Your task to perform on an android device: clear history in the chrome app Image 0: 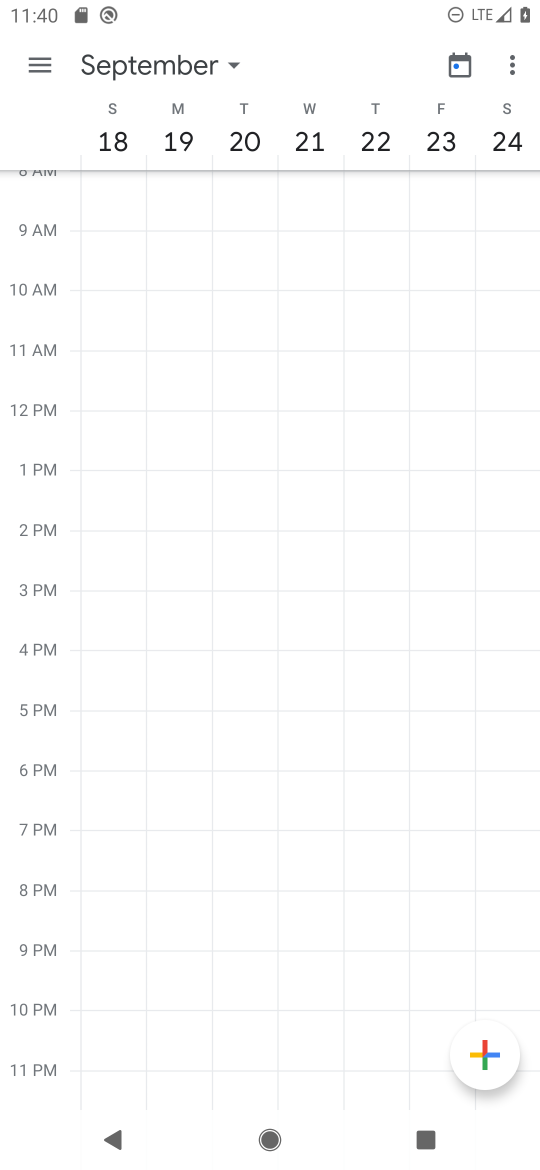
Step 0: press home button
Your task to perform on an android device: clear history in the chrome app Image 1: 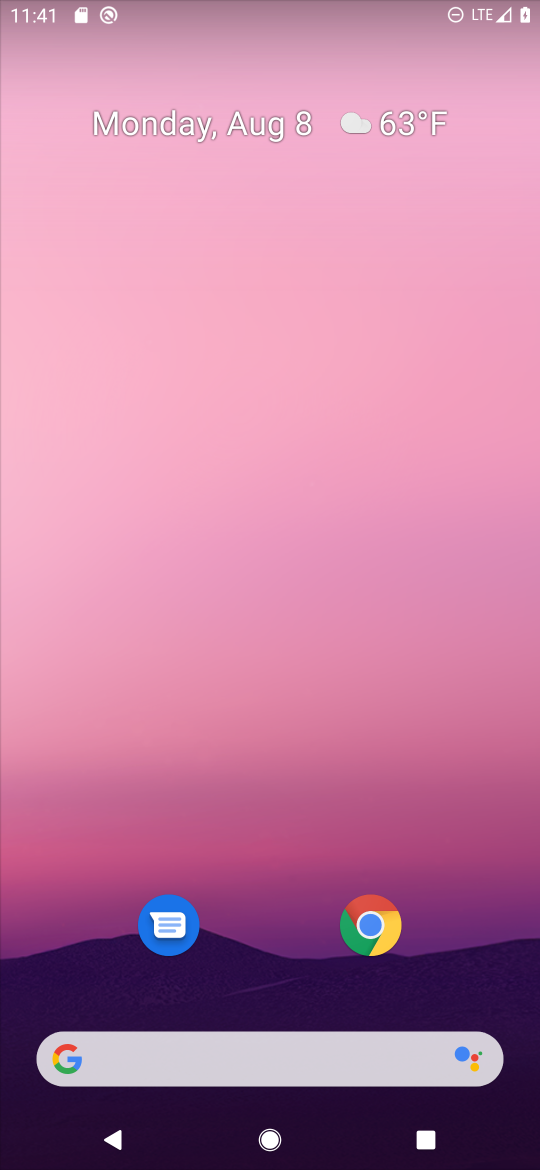
Step 1: click (377, 914)
Your task to perform on an android device: clear history in the chrome app Image 2: 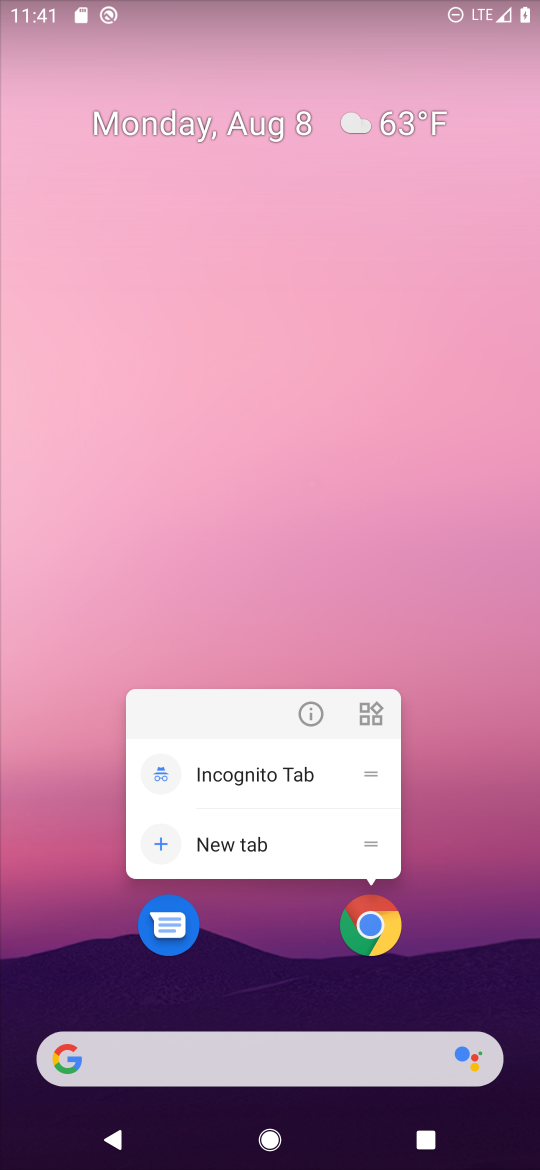
Step 2: click (375, 924)
Your task to perform on an android device: clear history in the chrome app Image 3: 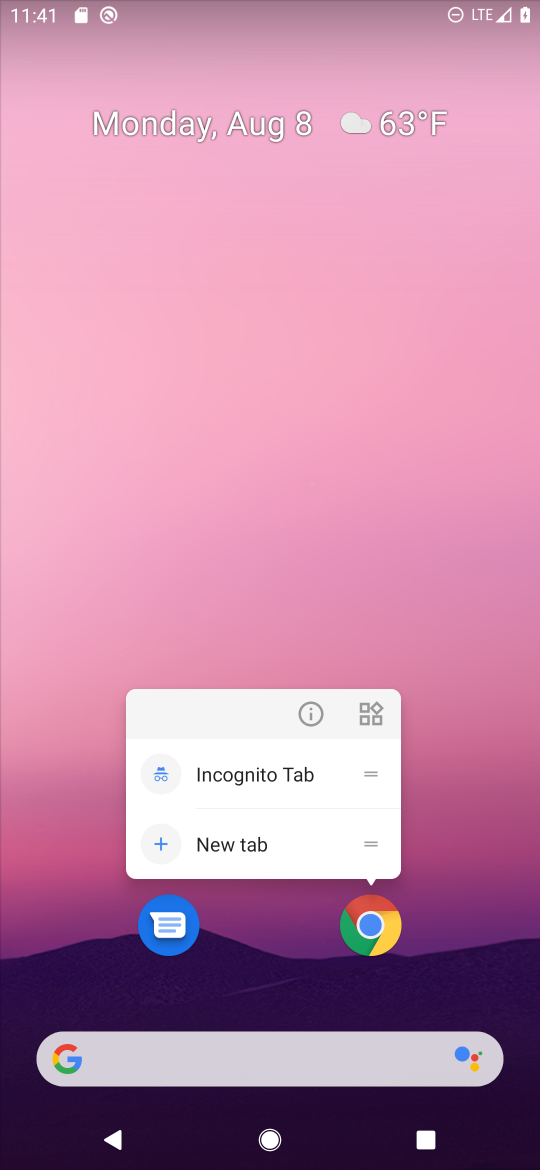
Step 3: click (366, 929)
Your task to perform on an android device: clear history in the chrome app Image 4: 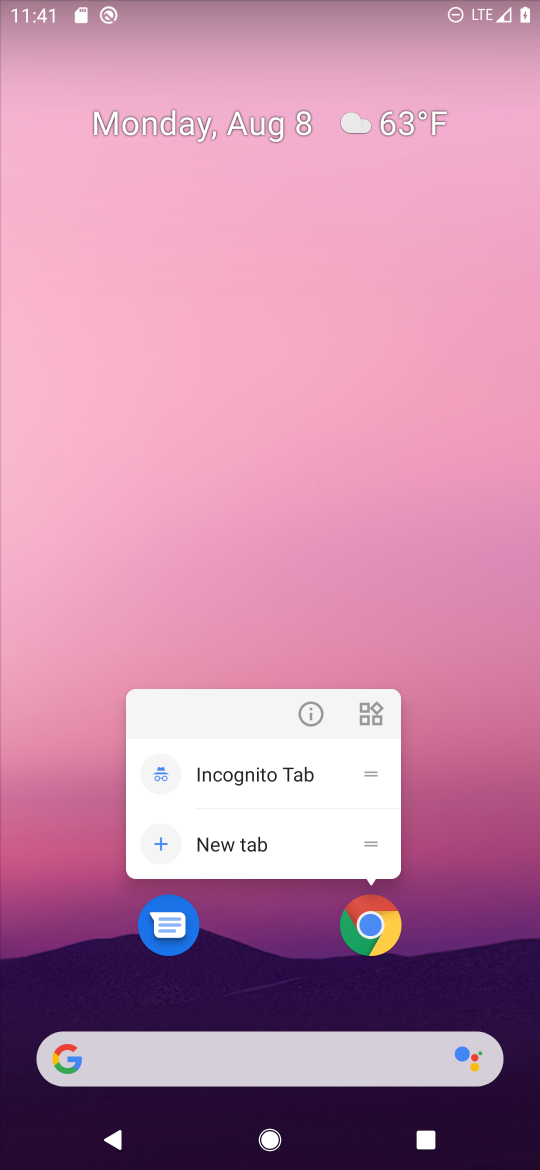
Step 4: click (366, 929)
Your task to perform on an android device: clear history in the chrome app Image 5: 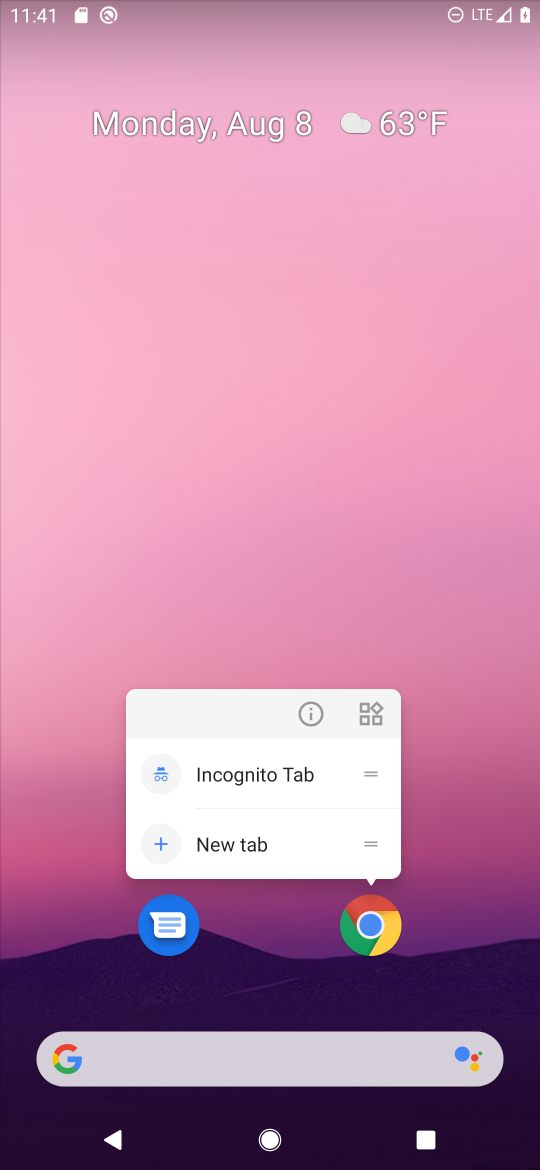
Step 5: click (499, 904)
Your task to perform on an android device: clear history in the chrome app Image 6: 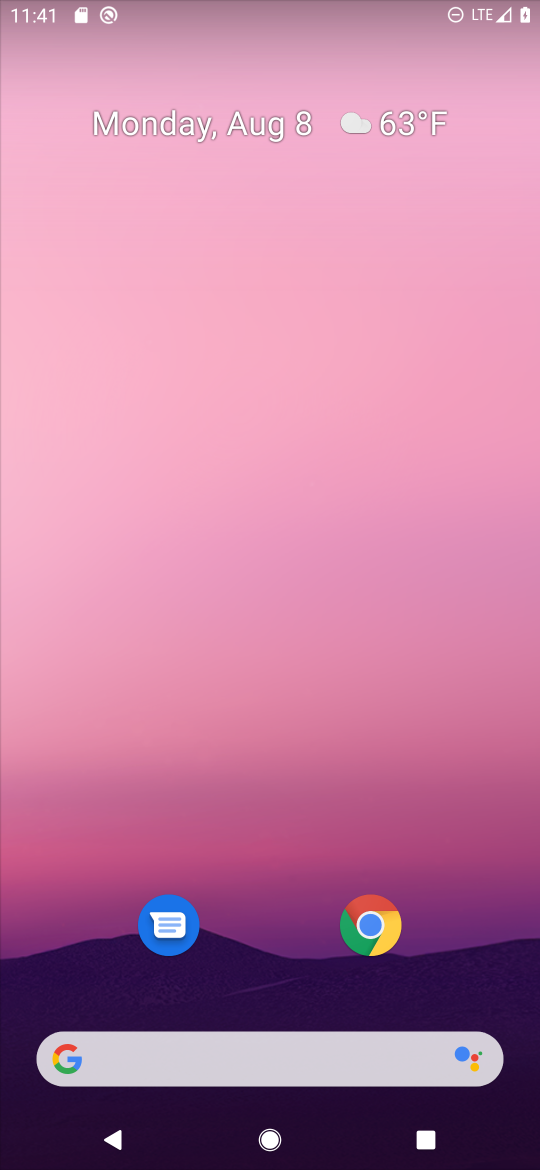
Step 6: drag from (438, 894) to (447, 46)
Your task to perform on an android device: clear history in the chrome app Image 7: 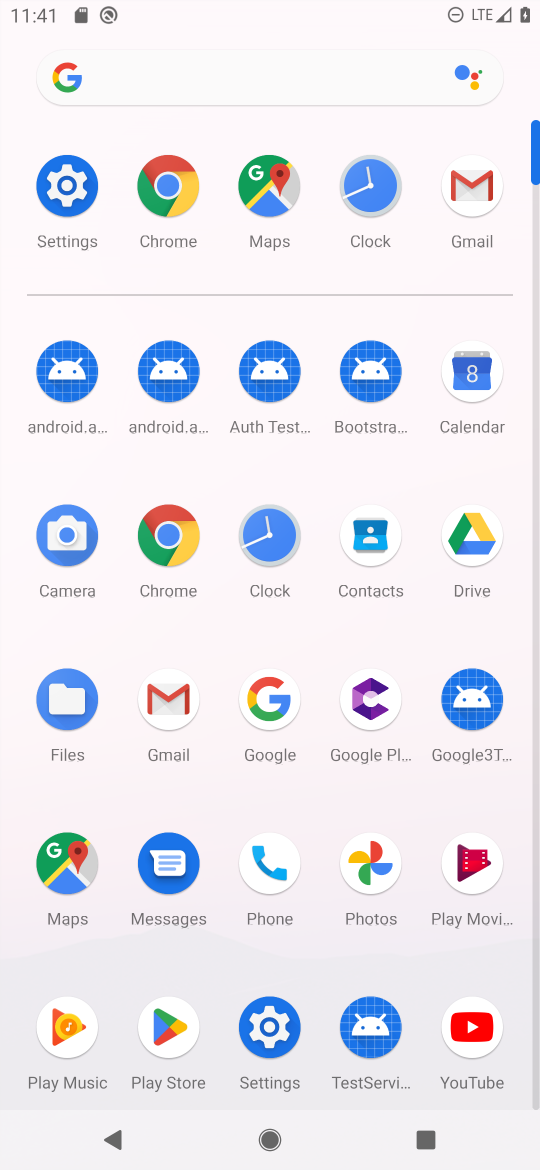
Step 7: click (163, 535)
Your task to perform on an android device: clear history in the chrome app Image 8: 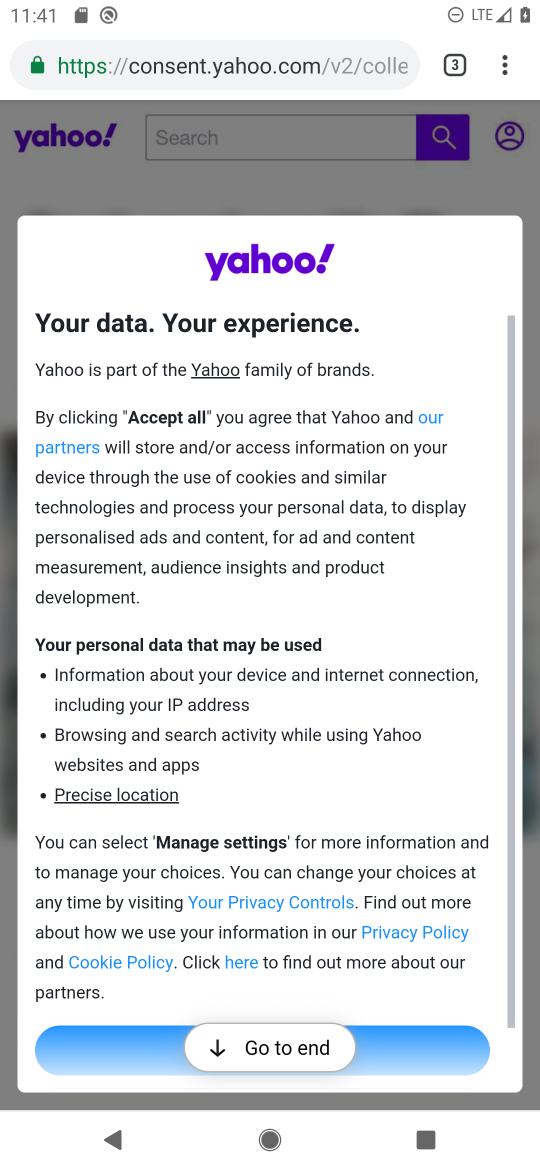
Step 8: drag from (507, 55) to (291, 452)
Your task to perform on an android device: clear history in the chrome app Image 9: 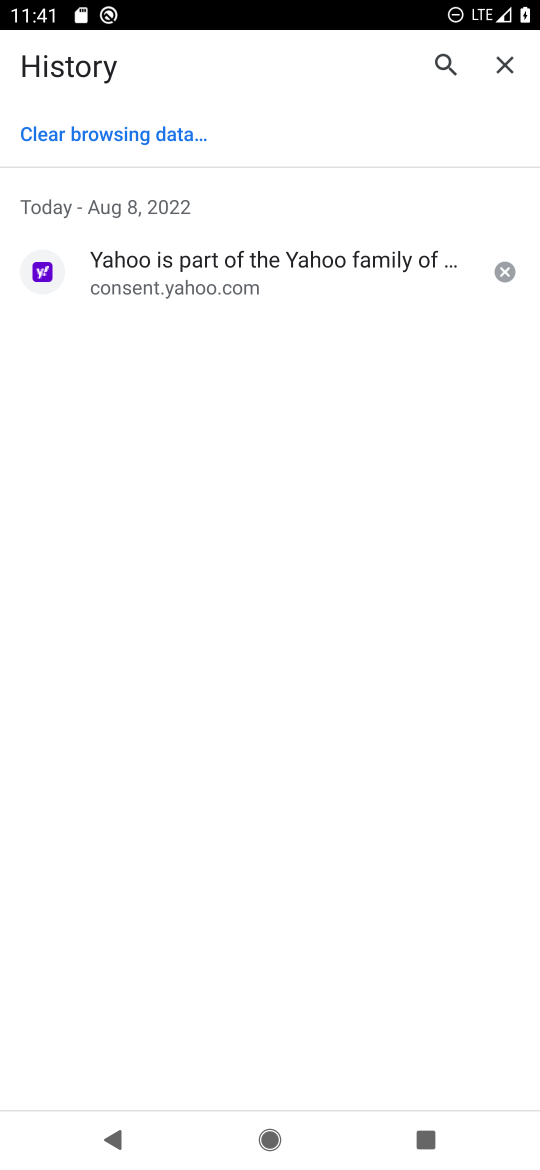
Step 9: click (117, 123)
Your task to perform on an android device: clear history in the chrome app Image 10: 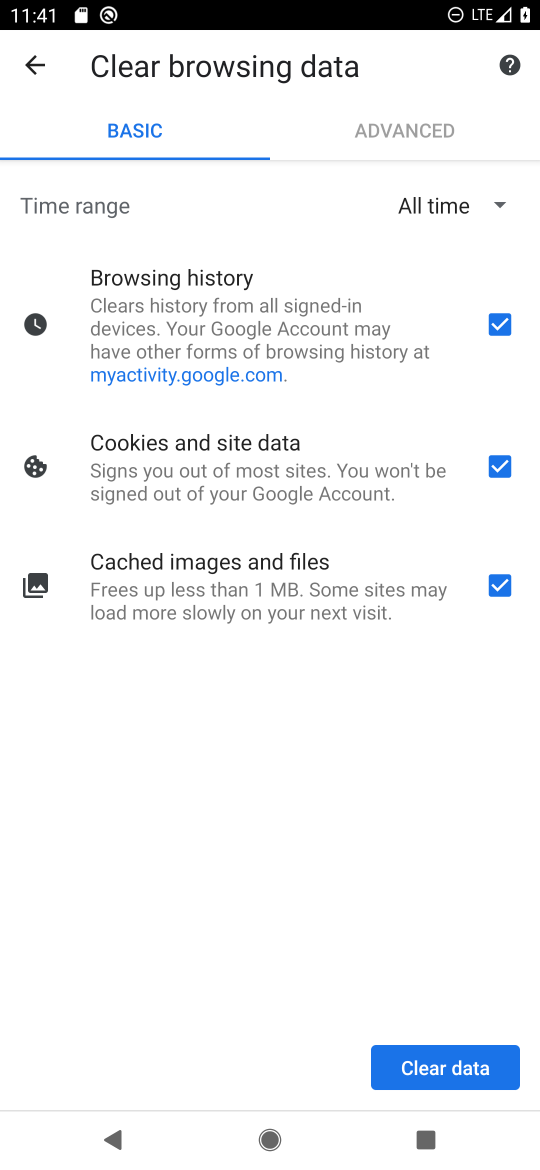
Step 10: click (432, 1063)
Your task to perform on an android device: clear history in the chrome app Image 11: 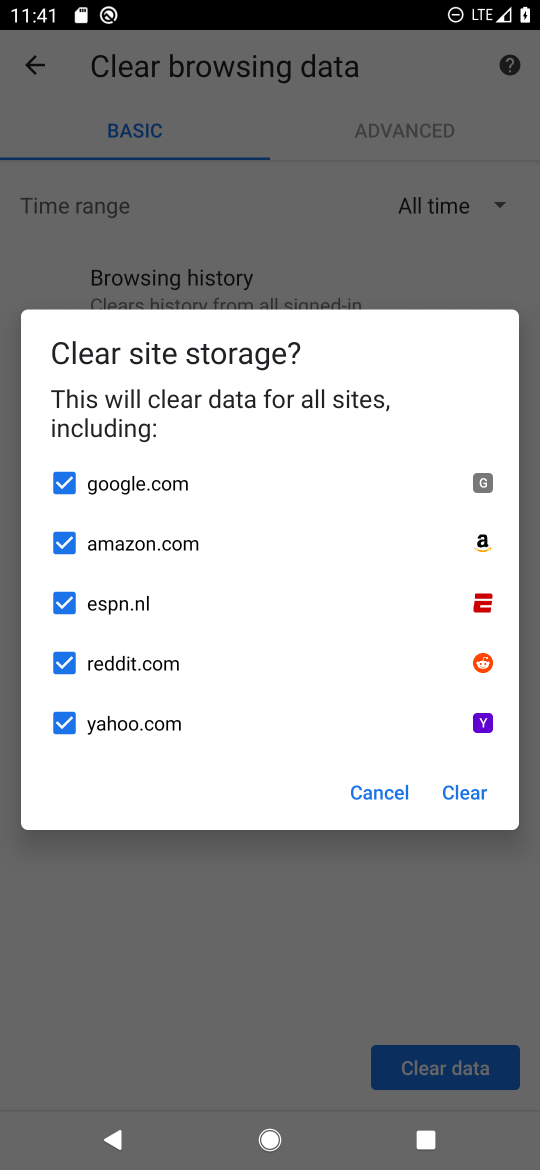
Step 11: click (460, 788)
Your task to perform on an android device: clear history in the chrome app Image 12: 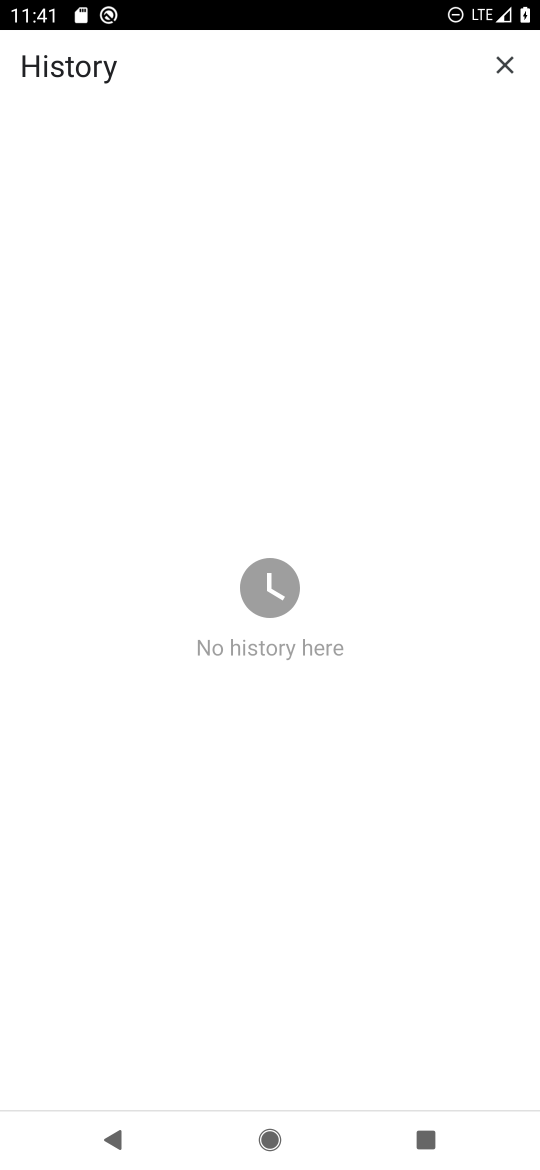
Step 12: task complete